Your task to perform on an android device: Do I have any events this weekend? Image 0: 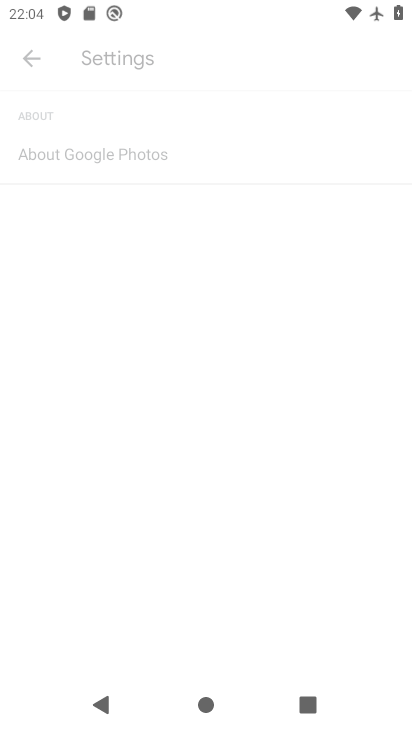
Step 0: drag from (224, 597) to (212, 508)
Your task to perform on an android device: Do I have any events this weekend? Image 1: 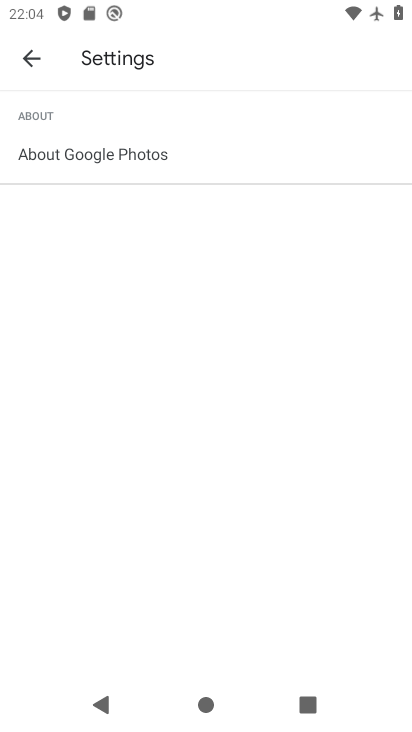
Step 1: press home button
Your task to perform on an android device: Do I have any events this weekend? Image 2: 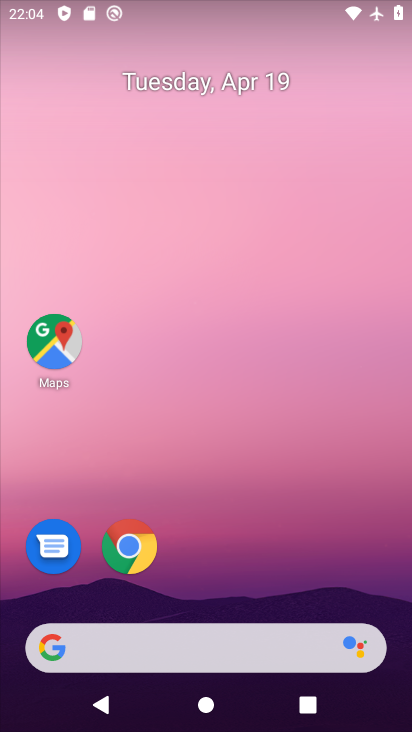
Step 2: drag from (209, 614) to (227, 121)
Your task to perform on an android device: Do I have any events this weekend? Image 3: 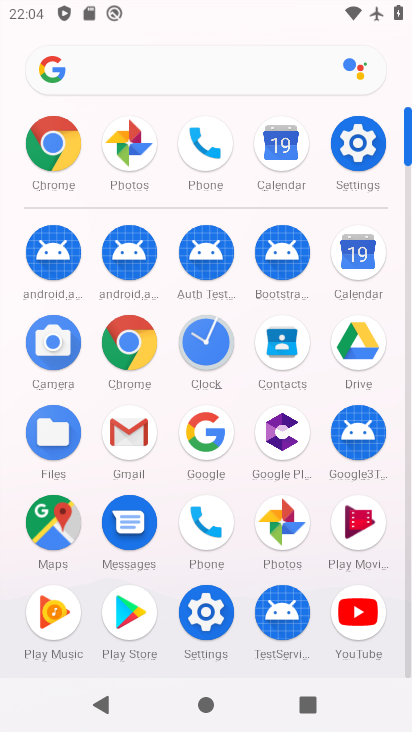
Step 3: click (270, 163)
Your task to perform on an android device: Do I have any events this weekend? Image 4: 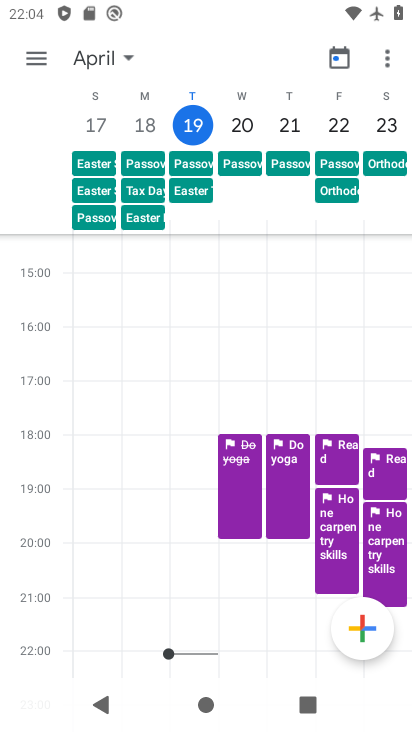
Step 4: task complete